Your task to perform on an android device: Open the map Image 0: 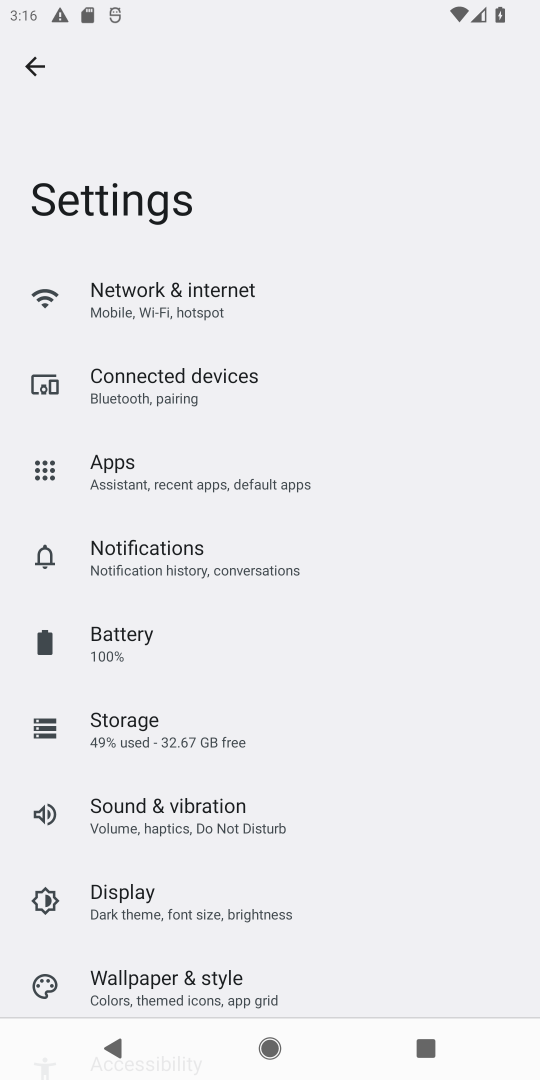
Step 0: press home button
Your task to perform on an android device: Open the map Image 1: 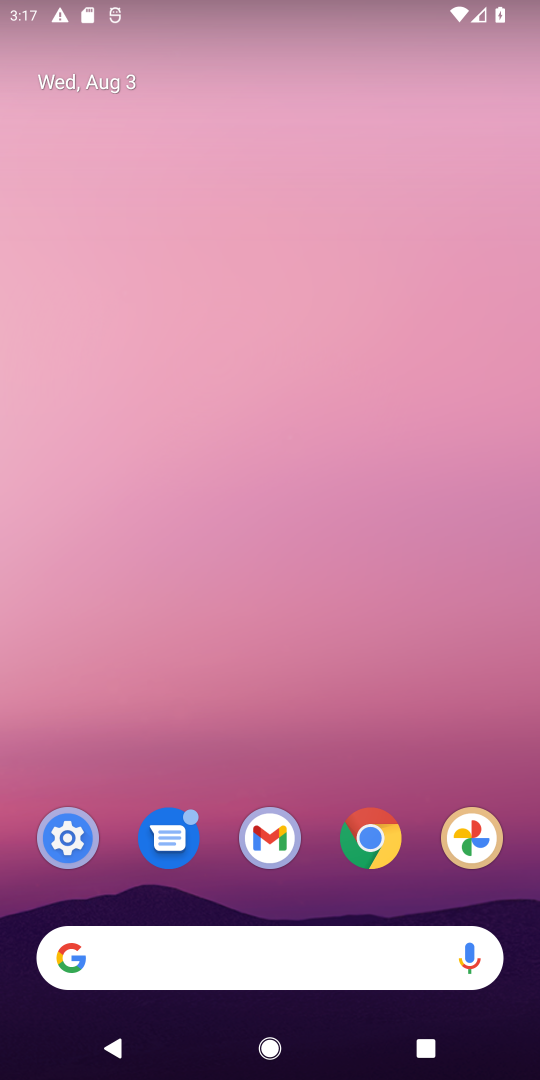
Step 1: drag from (243, 857) to (340, 163)
Your task to perform on an android device: Open the map Image 2: 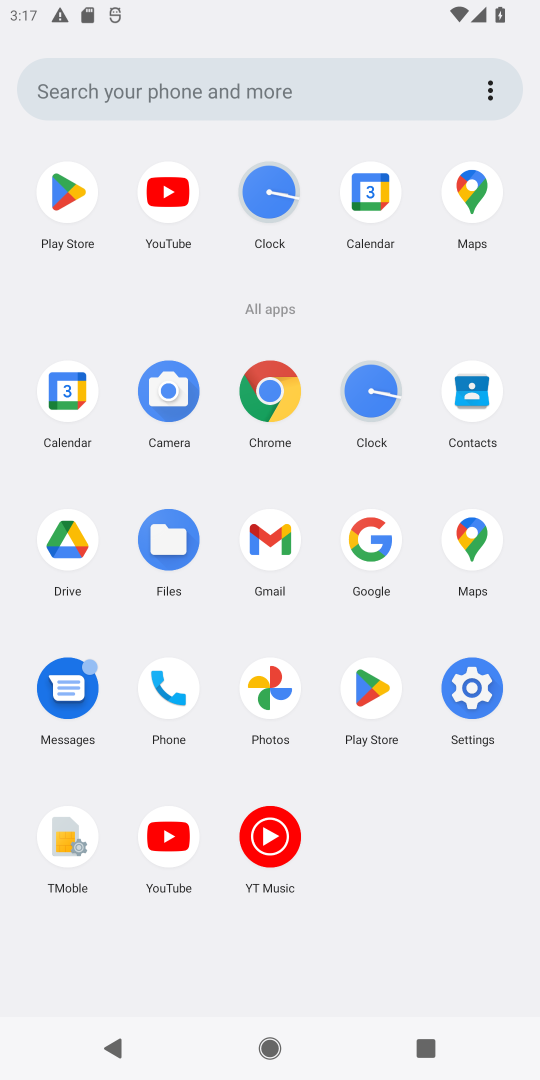
Step 2: click (463, 552)
Your task to perform on an android device: Open the map Image 3: 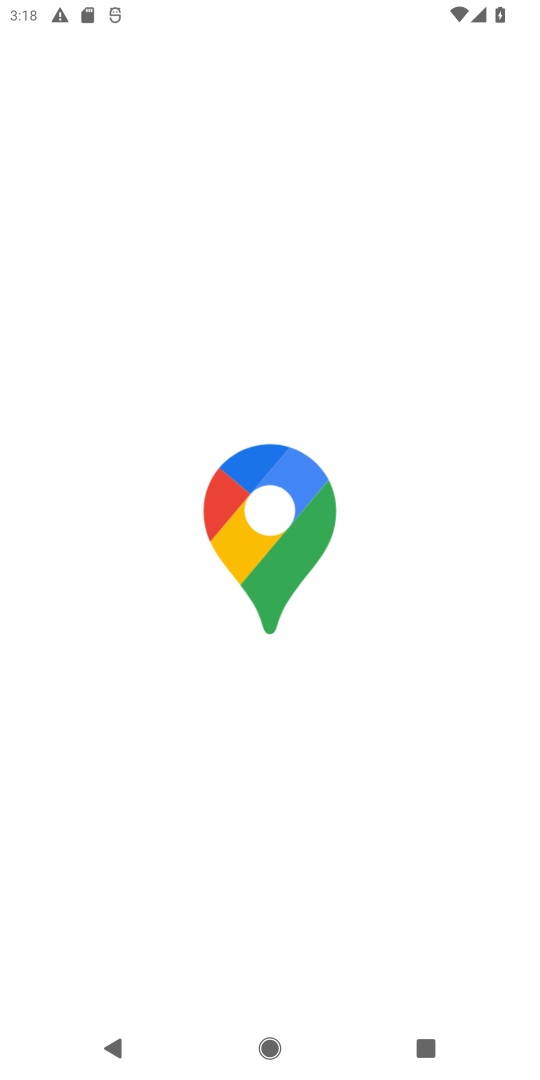
Step 3: task complete